Your task to perform on an android device: Open my contact list Image 0: 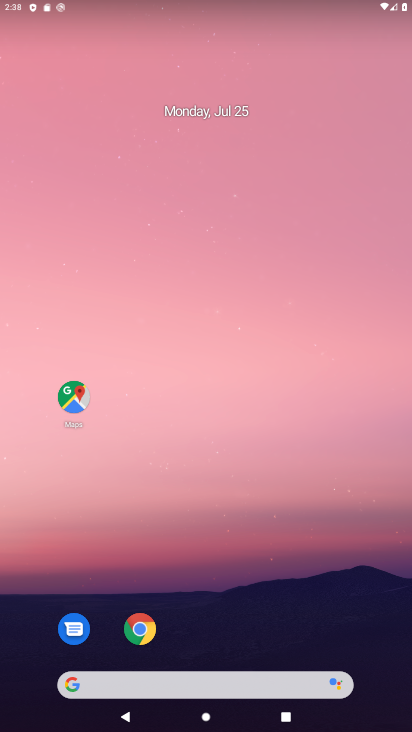
Step 0: drag from (289, 640) to (283, 73)
Your task to perform on an android device: Open my contact list Image 1: 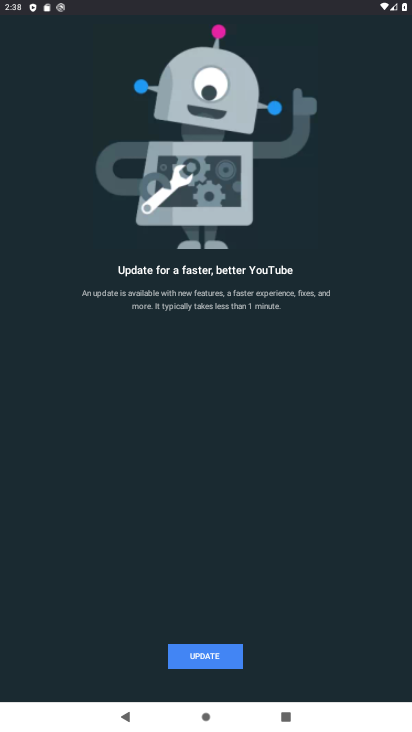
Step 1: press home button
Your task to perform on an android device: Open my contact list Image 2: 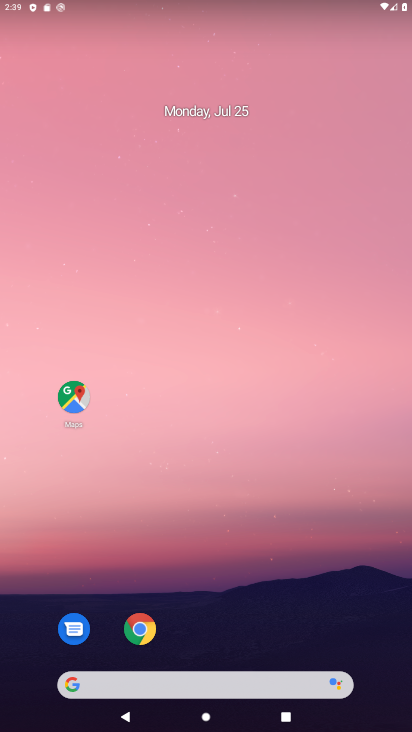
Step 2: drag from (228, 650) to (212, 43)
Your task to perform on an android device: Open my contact list Image 3: 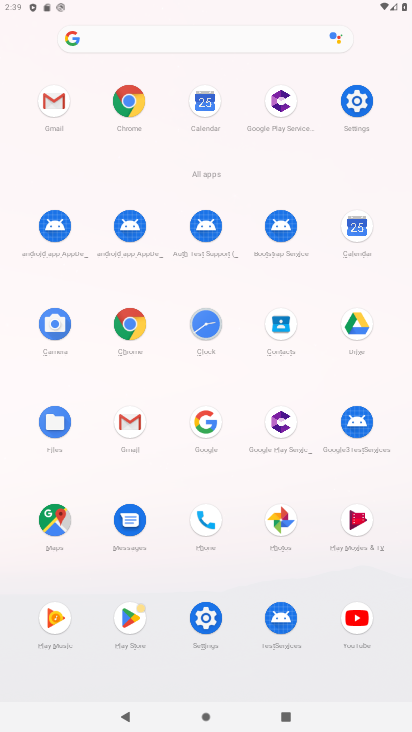
Step 3: click (276, 327)
Your task to perform on an android device: Open my contact list Image 4: 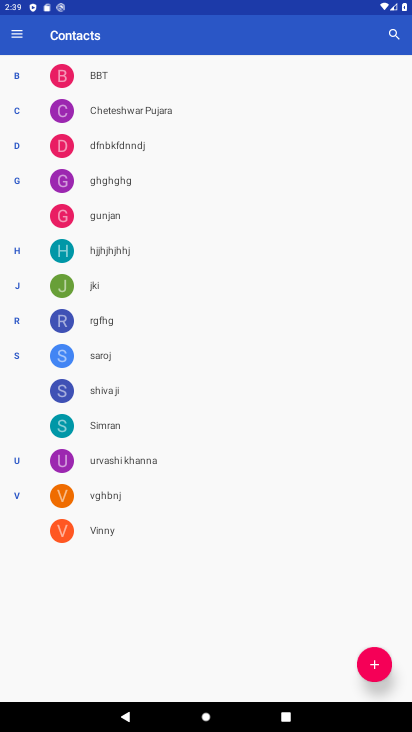
Step 4: task complete